Your task to perform on an android device: open app "Google Translate" (install if not already installed) Image 0: 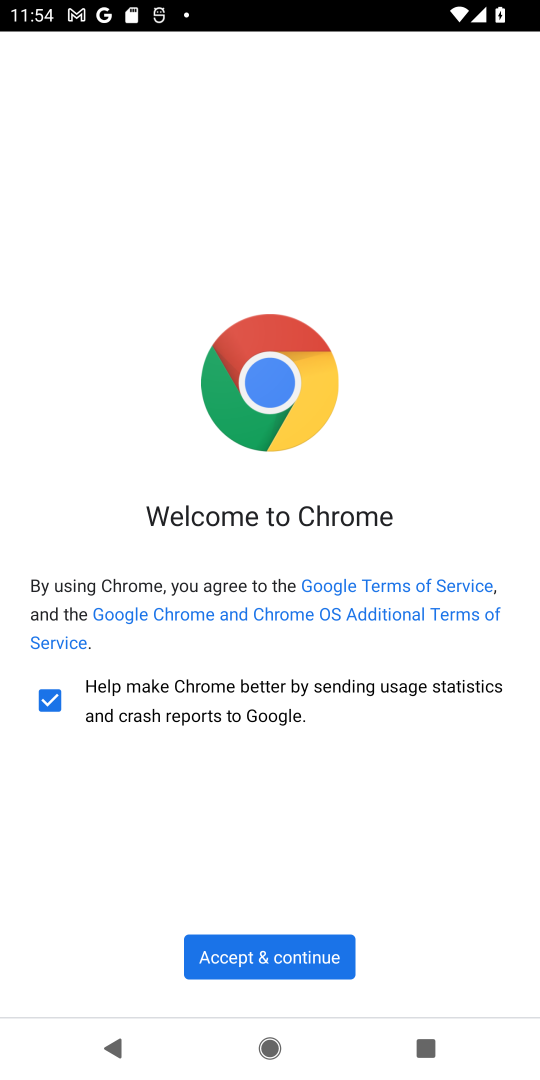
Step 0: press home button
Your task to perform on an android device: open app "Google Translate" (install if not already installed) Image 1: 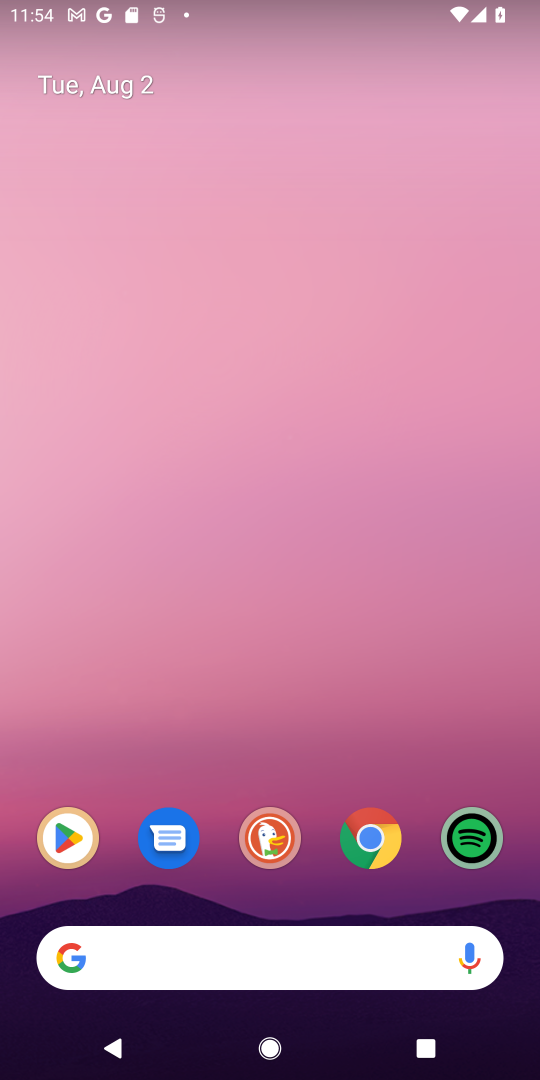
Step 1: drag from (239, 940) to (164, 186)
Your task to perform on an android device: open app "Google Translate" (install if not already installed) Image 2: 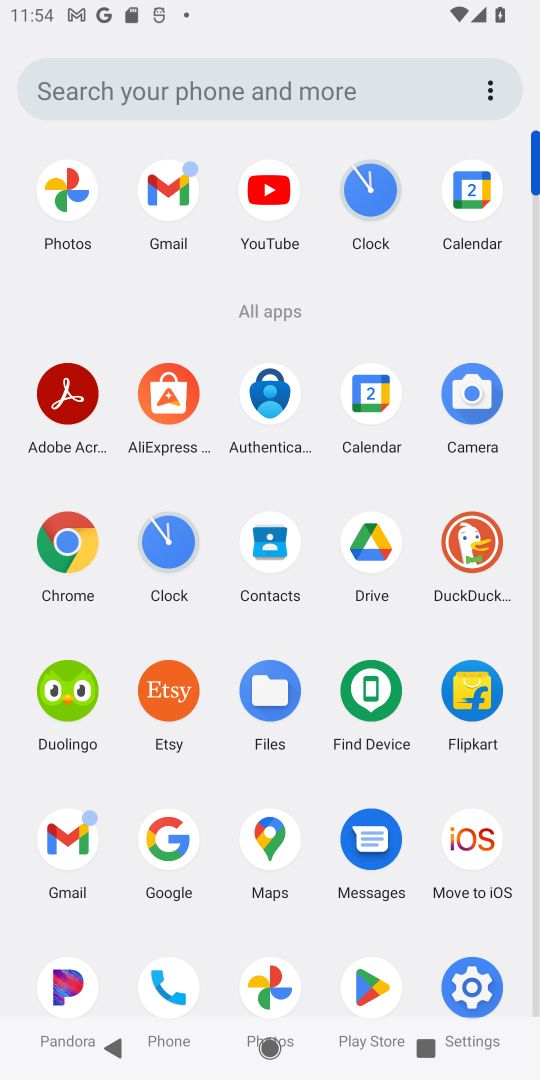
Step 2: click (364, 977)
Your task to perform on an android device: open app "Google Translate" (install if not already installed) Image 3: 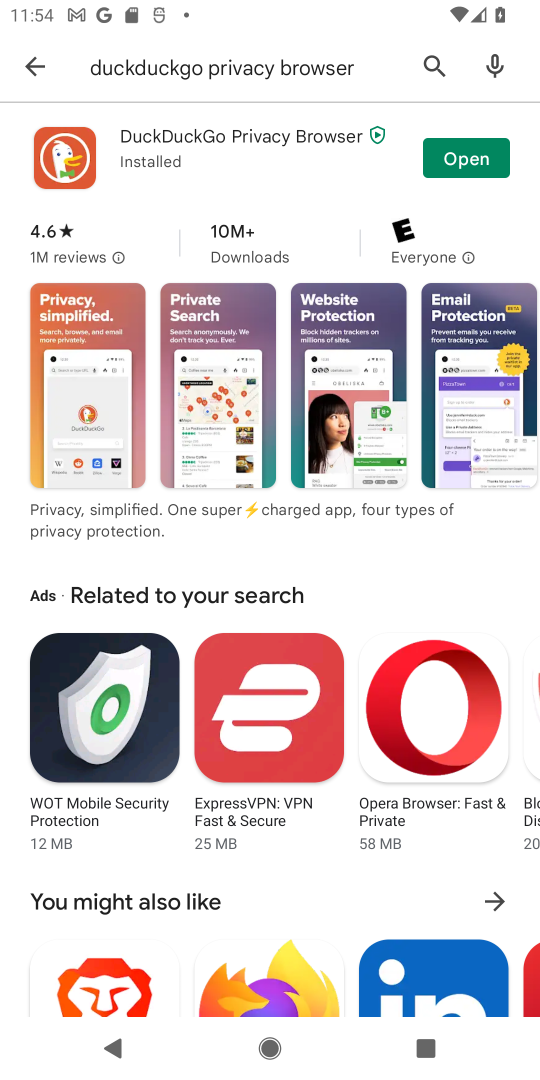
Step 3: click (425, 56)
Your task to perform on an android device: open app "Google Translate" (install if not already installed) Image 4: 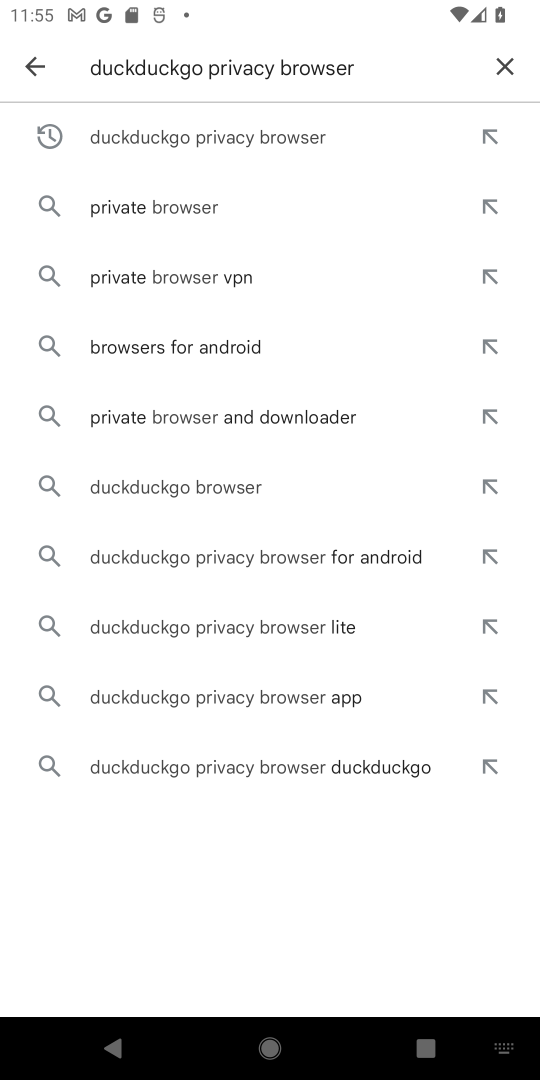
Step 4: click (493, 70)
Your task to perform on an android device: open app "Google Translate" (install if not already installed) Image 5: 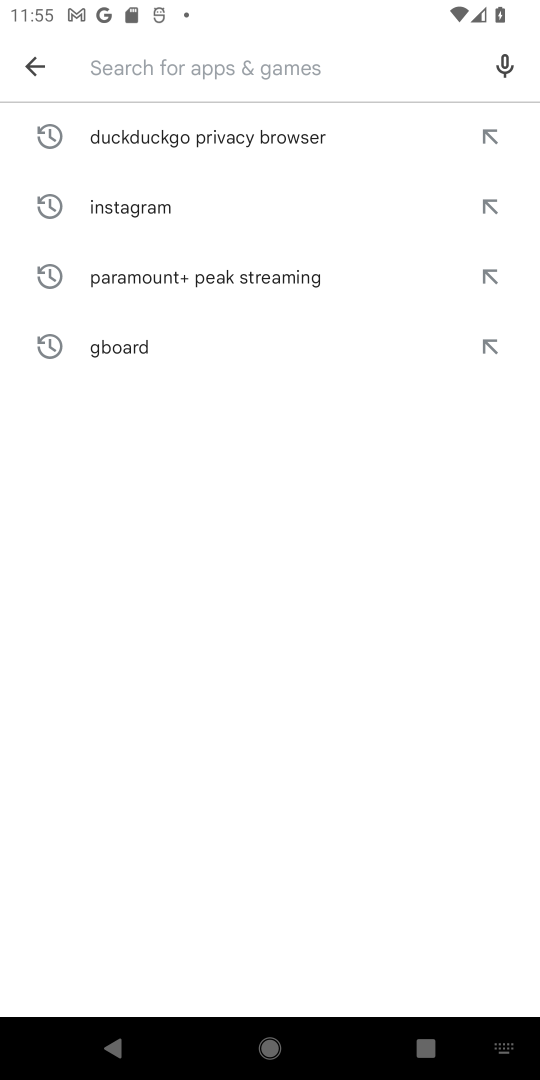
Step 5: type "Google Translate"
Your task to perform on an android device: open app "Google Translate" (install if not already installed) Image 6: 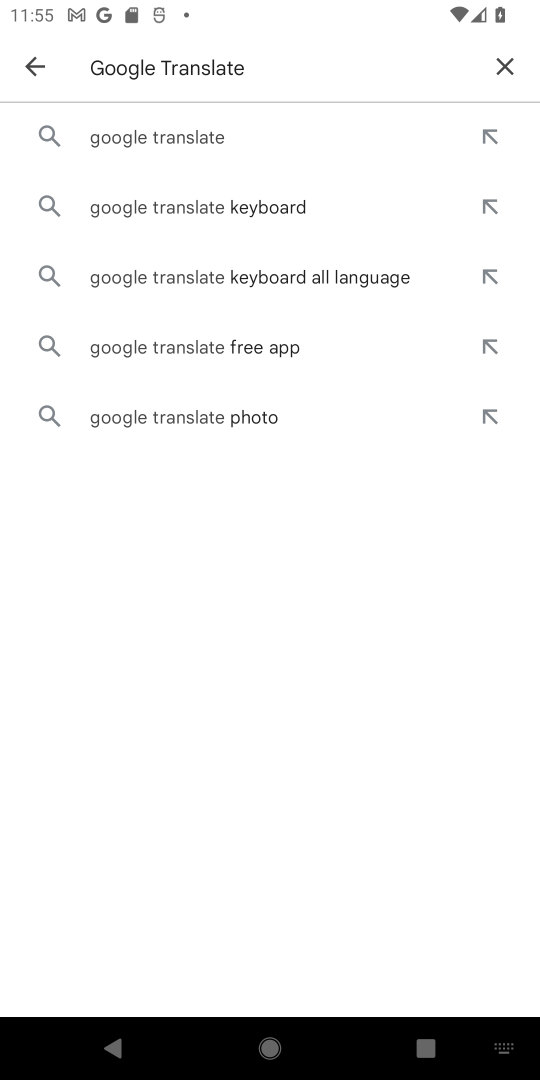
Step 6: click (212, 125)
Your task to perform on an android device: open app "Google Translate" (install if not already installed) Image 7: 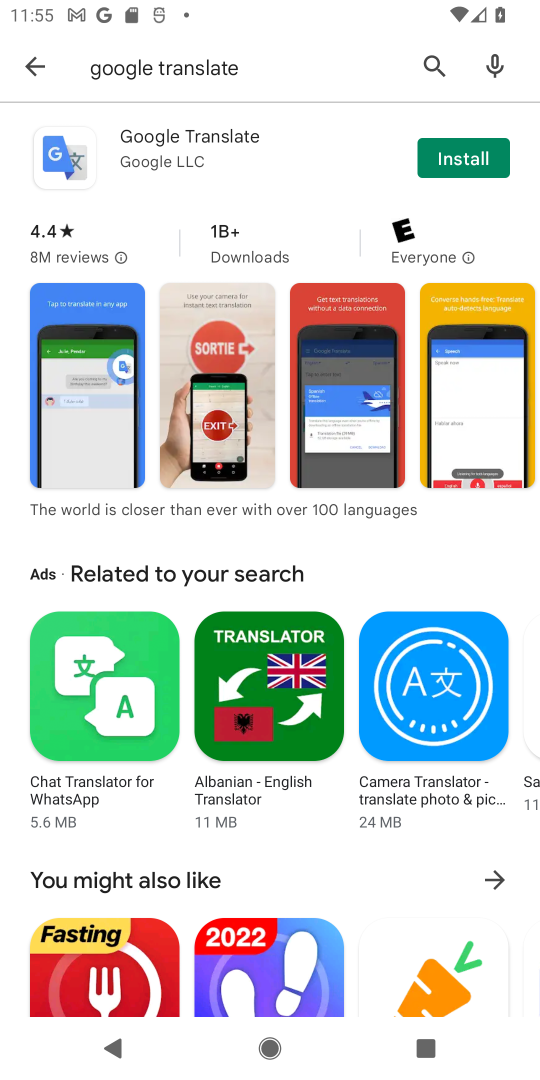
Step 7: click (437, 167)
Your task to perform on an android device: open app "Google Translate" (install if not already installed) Image 8: 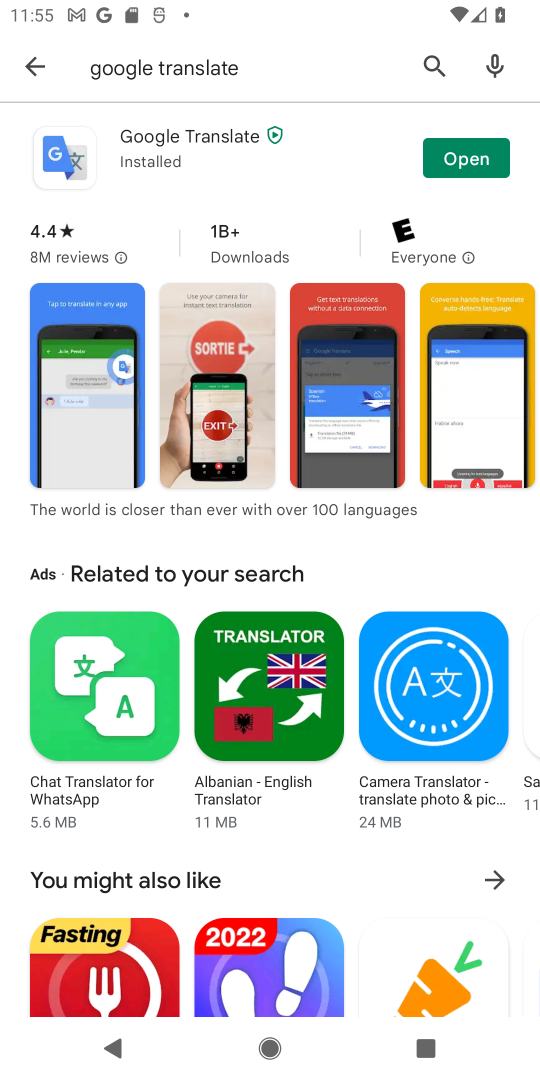
Step 8: click (453, 168)
Your task to perform on an android device: open app "Google Translate" (install if not already installed) Image 9: 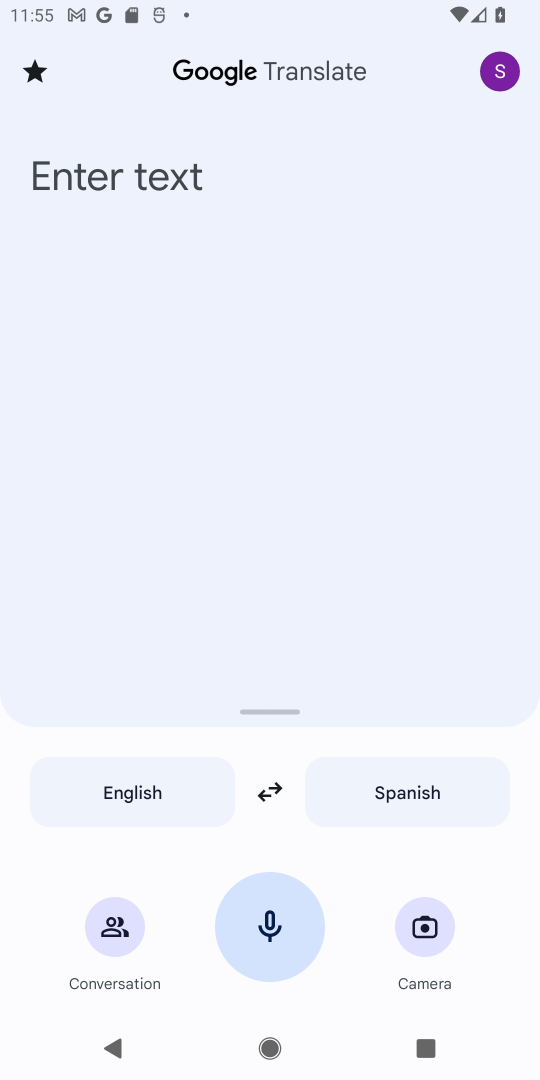
Step 9: task complete